Your task to perform on an android device: turn on bluetooth scan Image 0: 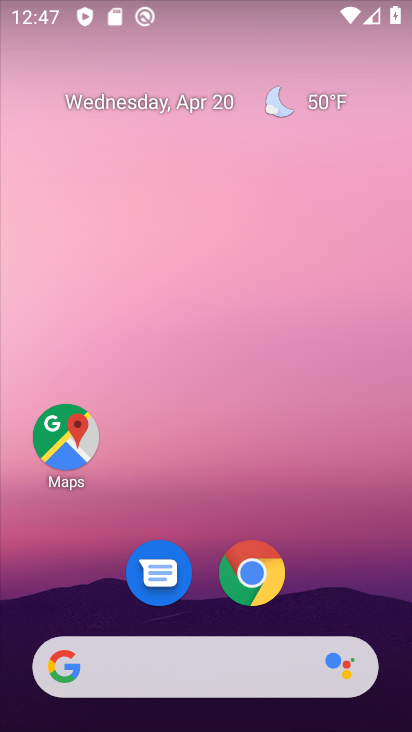
Step 0: drag from (341, 551) to (322, 27)
Your task to perform on an android device: turn on bluetooth scan Image 1: 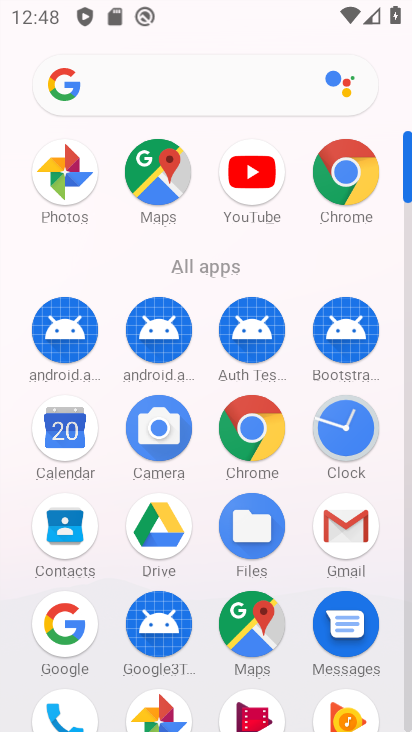
Step 1: drag from (403, 551) to (406, 427)
Your task to perform on an android device: turn on bluetooth scan Image 2: 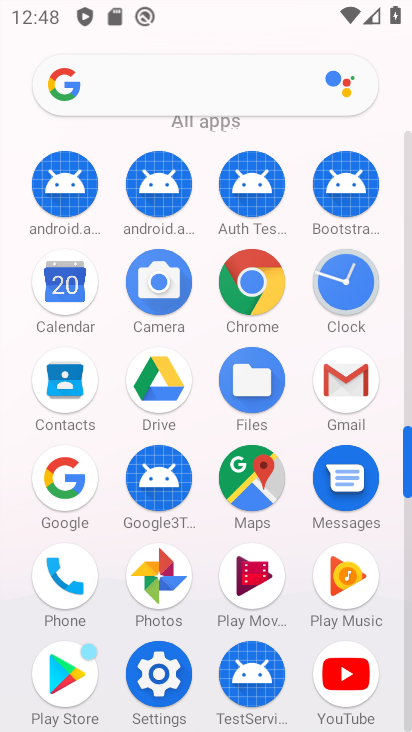
Step 2: click (162, 673)
Your task to perform on an android device: turn on bluetooth scan Image 3: 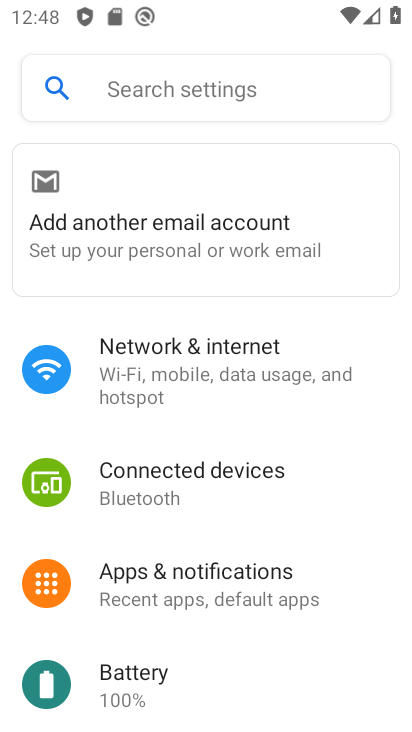
Step 3: drag from (374, 595) to (375, 168)
Your task to perform on an android device: turn on bluetooth scan Image 4: 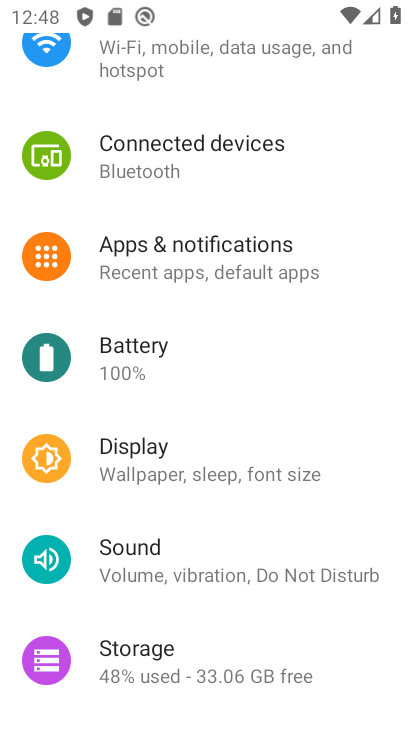
Step 4: drag from (376, 576) to (376, 256)
Your task to perform on an android device: turn on bluetooth scan Image 5: 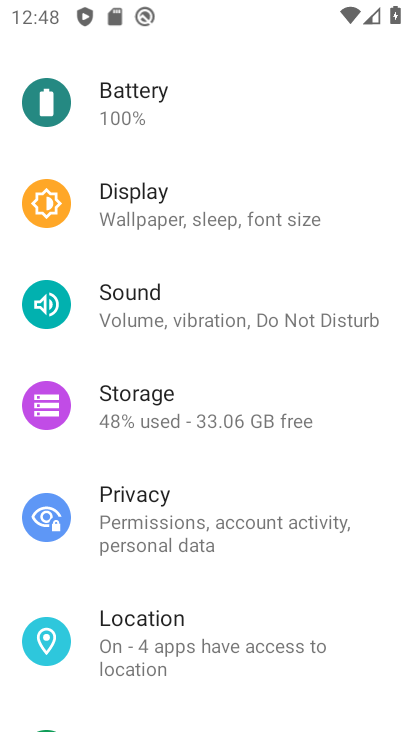
Step 5: click (143, 632)
Your task to perform on an android device: turn on bluetooth scan Image 6: 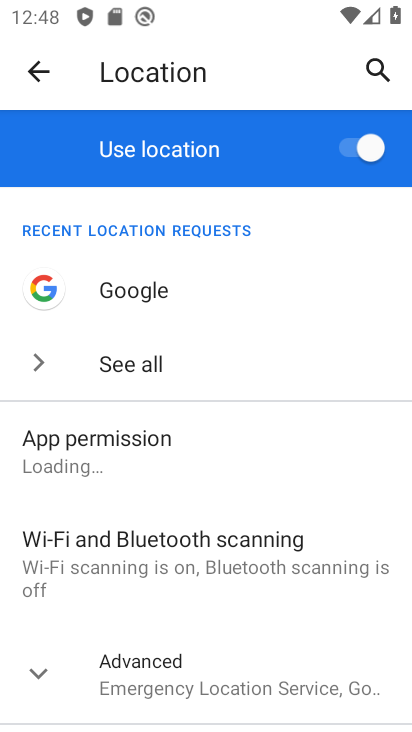
Step 6: click (122, 559)
Your task to perform on an android device: turn on bluetooth scan Image 7: 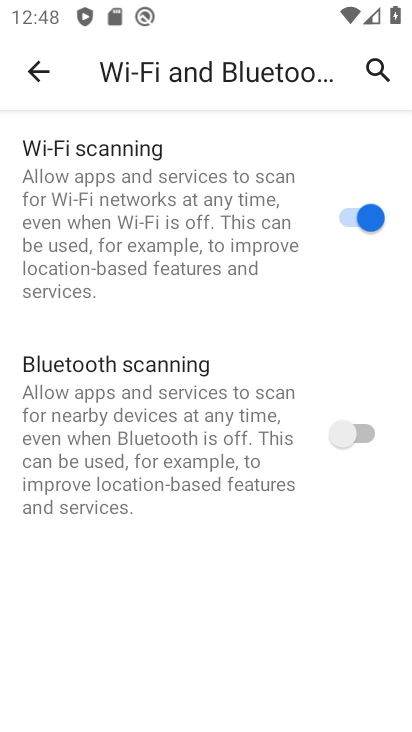
Step 7: click (356, 434)
Your task to perform on an android device: turn on bluetooth scan Image 8: 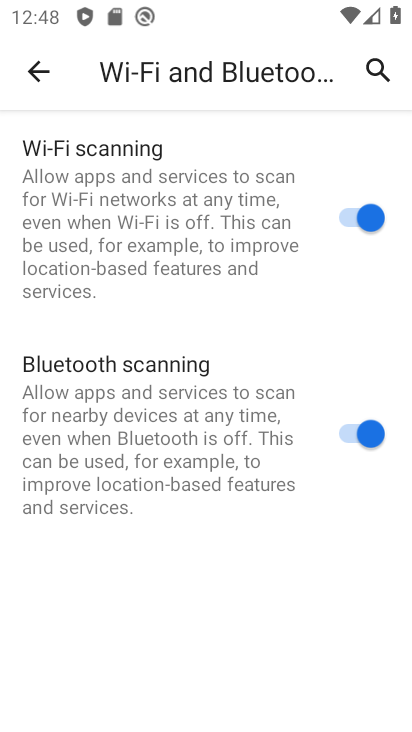
Step 8: task complete